Your task to perform on an android device: install app "Facebook Messenger" Image 0: 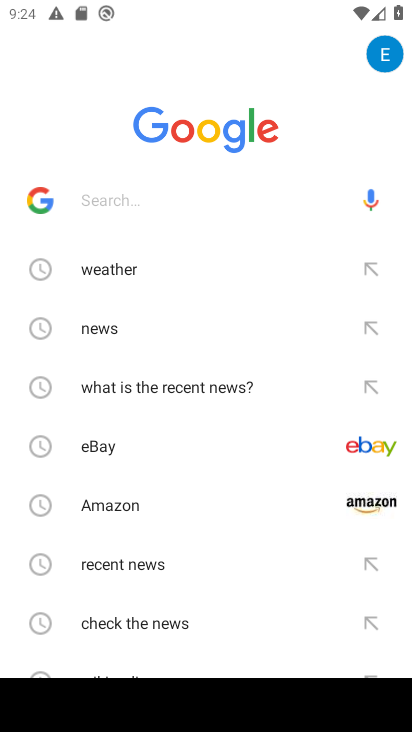
Step 0: press home button
Your task to perform on an android device: install app "Facebook Messenger" Image 1: 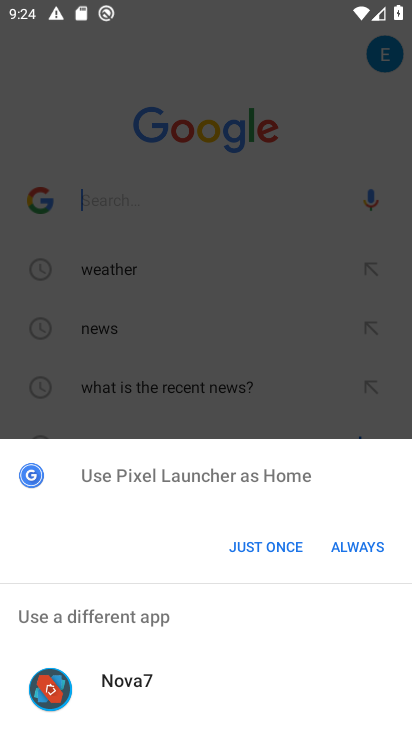
Step 1: press home button
Your task to perform on an android device: install app "Facebook Messenger" Image 2: 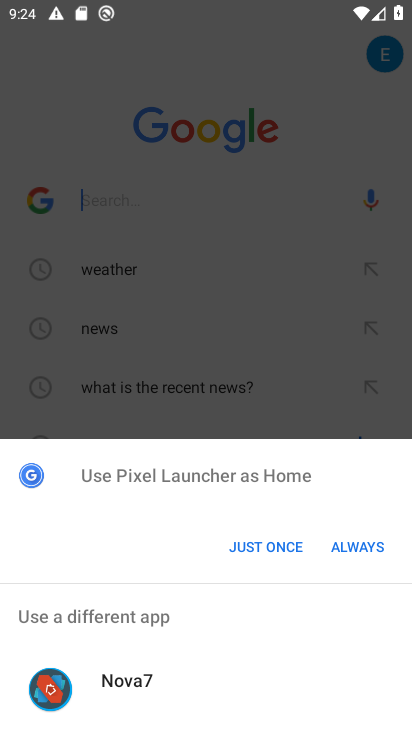
Step 2: press home button
Your task to perform on an android device: install app "Facebook Messenger" Image 3: 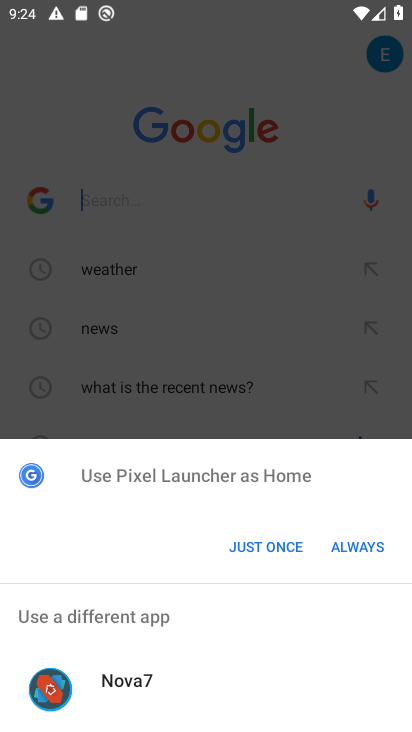
Step 3: press home button
Your task to perform on an android device: install app "Facebook Messenger" Image 4: 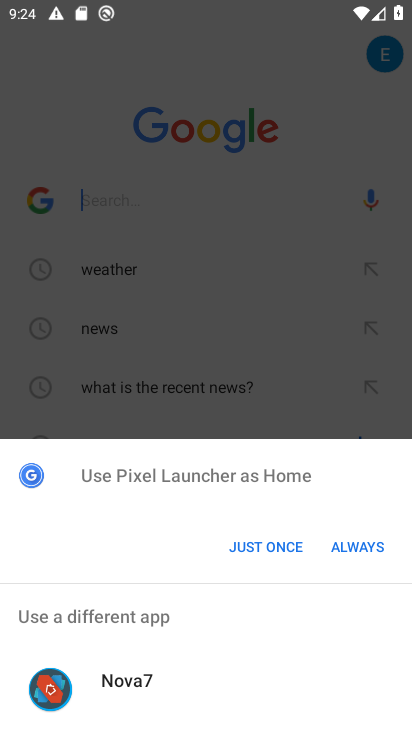
Step 4: press home button
Your task to perform on an android device: install app "Facebook Messenger" Image 5: 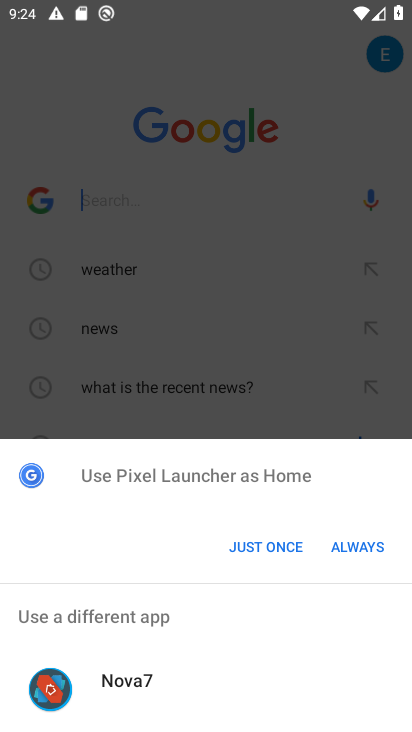
Step 5: click (372, 542)
Your task to perform on an android device: install app "Facebook Messenger" Image 6: 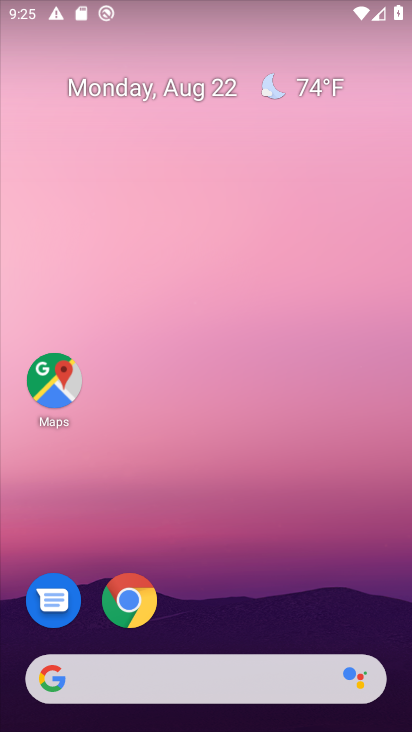
Step 6: drag from (222, 593) to (204, 158)
Your task to perform on an android device: install app "Facebook Messenger" Image 7: 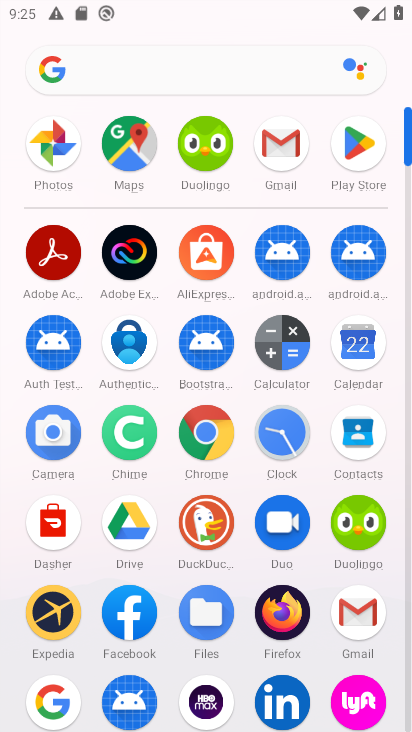
Step 7: click (336, 147)
Your task to perform on an android device: install app "Facebook Messenger" Image 8: 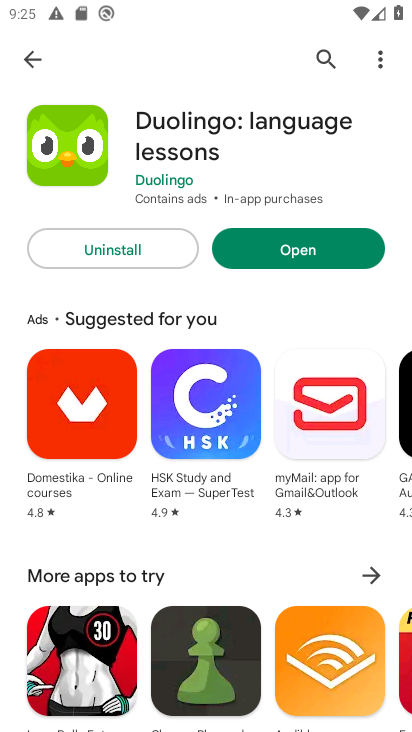
Step 8: click (325, 53)
Your task to perform on an android device: install app "Facebook Messenger" Image 9: 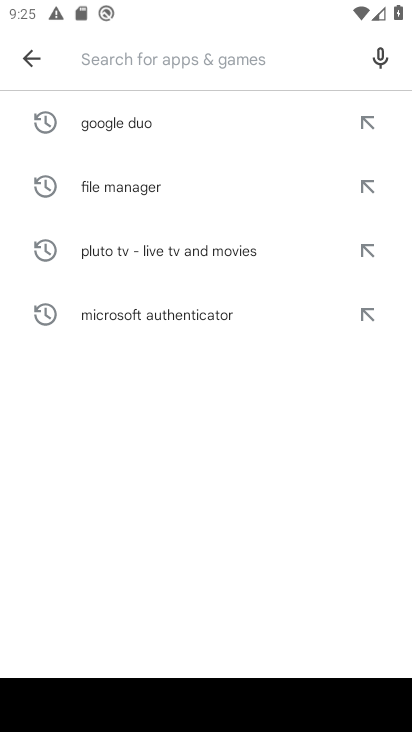
Step 9: type "Facebook Messenger"
Your task to perform on an android device: install app "Facebook Messenger" Image 10: 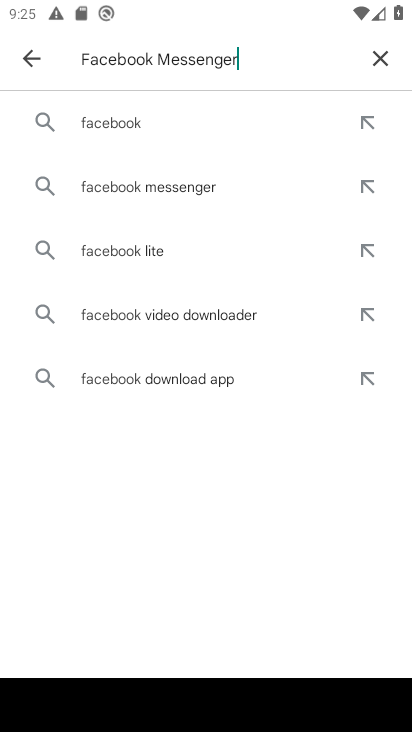
Step 10: type ""
Your task to perform on an android device: install app "Facebook Messenger" Image 11: 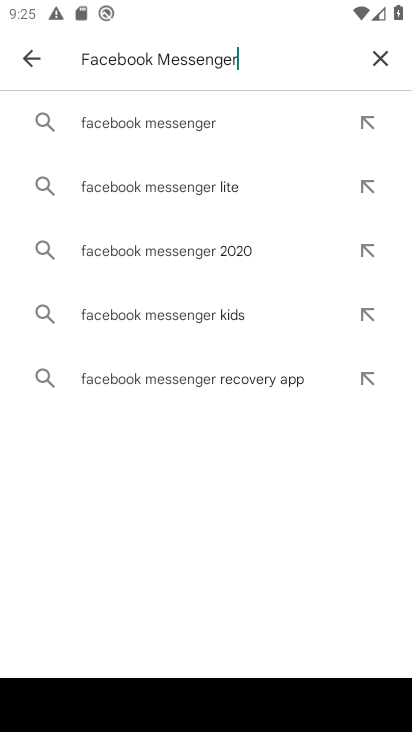
Step 11: click (151, 132)
Your task to perform on an android device: install app "Facebook Messenger" Image 12: 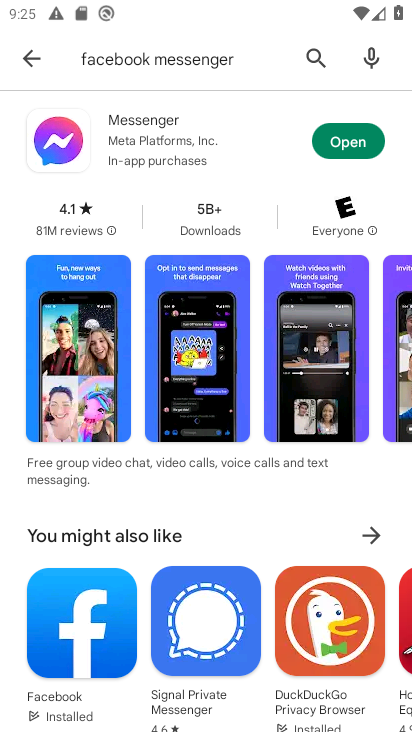
Step 12: click (232, 131)
Your task to perform on an android device: install app "Facebook Messenger" Image 13: 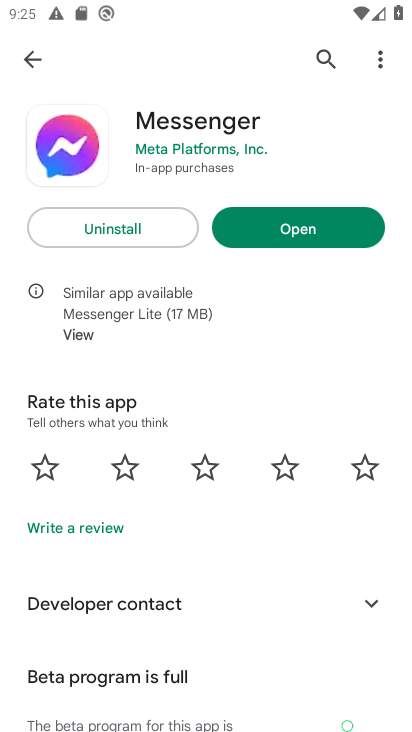
Step 13: task complete